Your task to perform on an android device: uninstall "Google Home" Image 0: 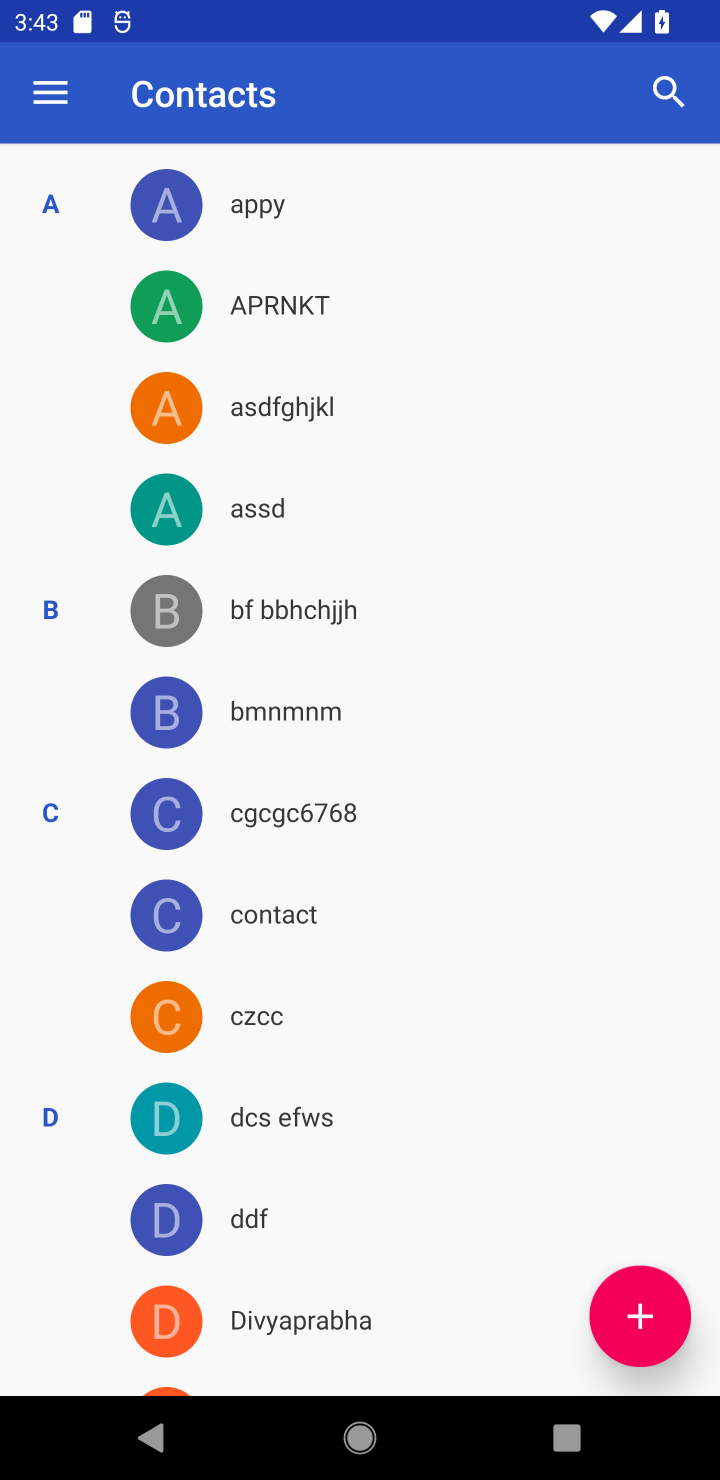
Step 0: press home button
Your task to perform on an android device: uninstall "Google Home" Image 1: 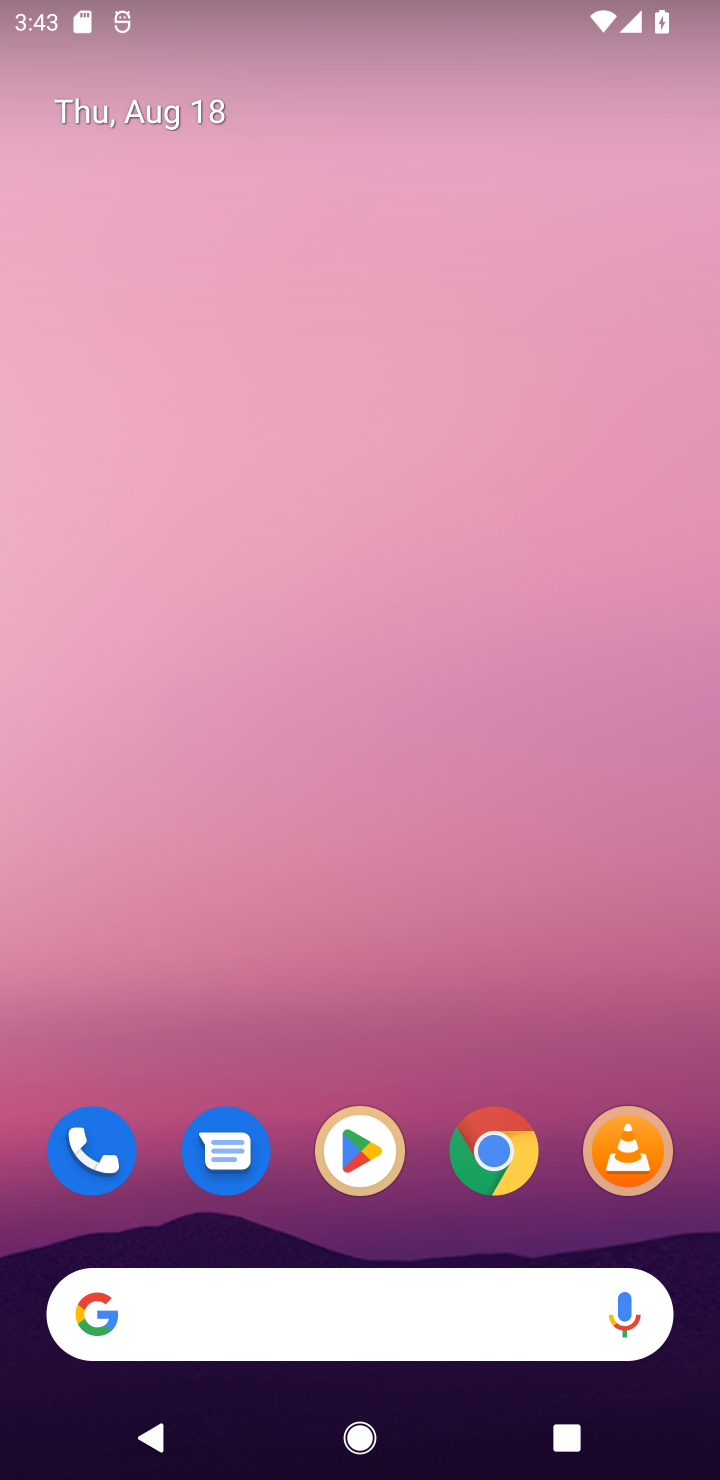
Step 1: drag from (438, 1230) to (263, 249)
Your task to perform on an android device: uninstall "Google Home" Image 2: 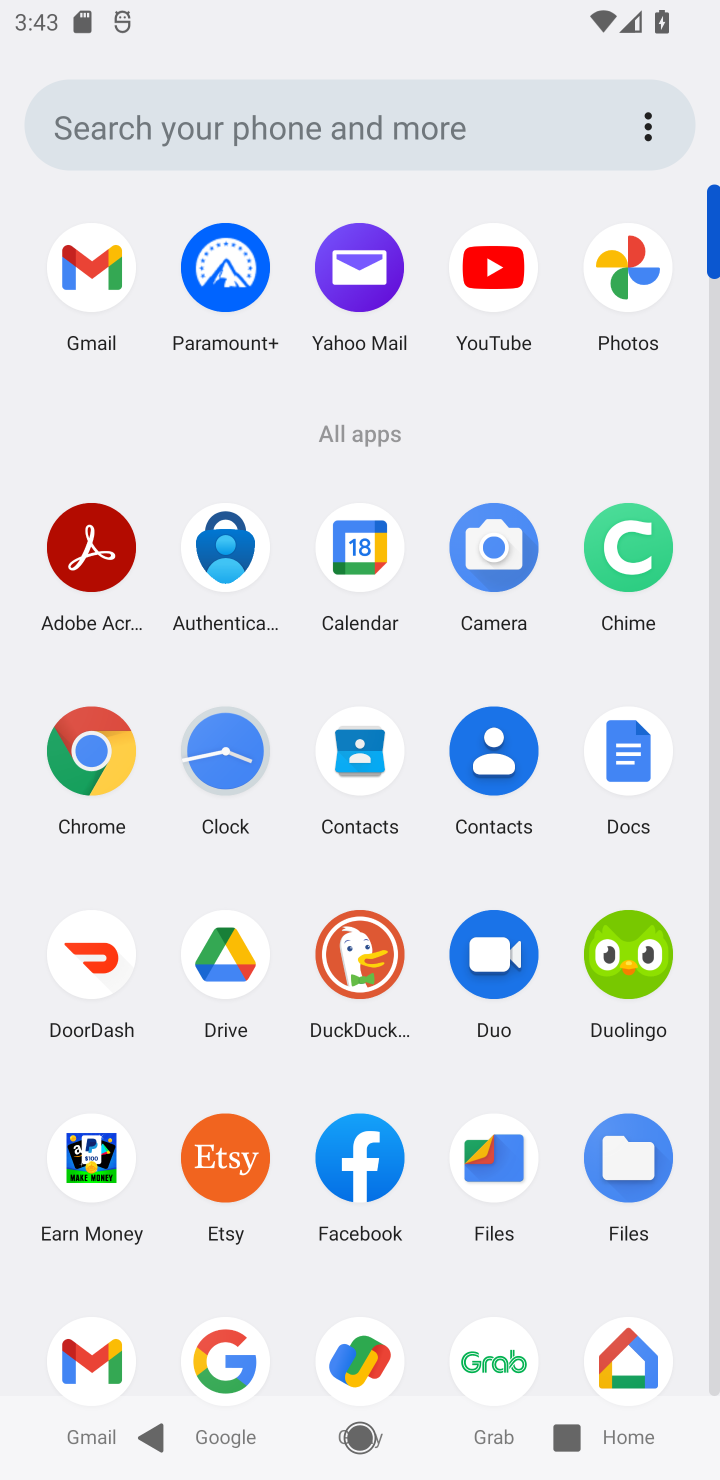
Step 2: click (642, 1389)
Your task to perform on an android device: uninstall "Google Home" Image 3: 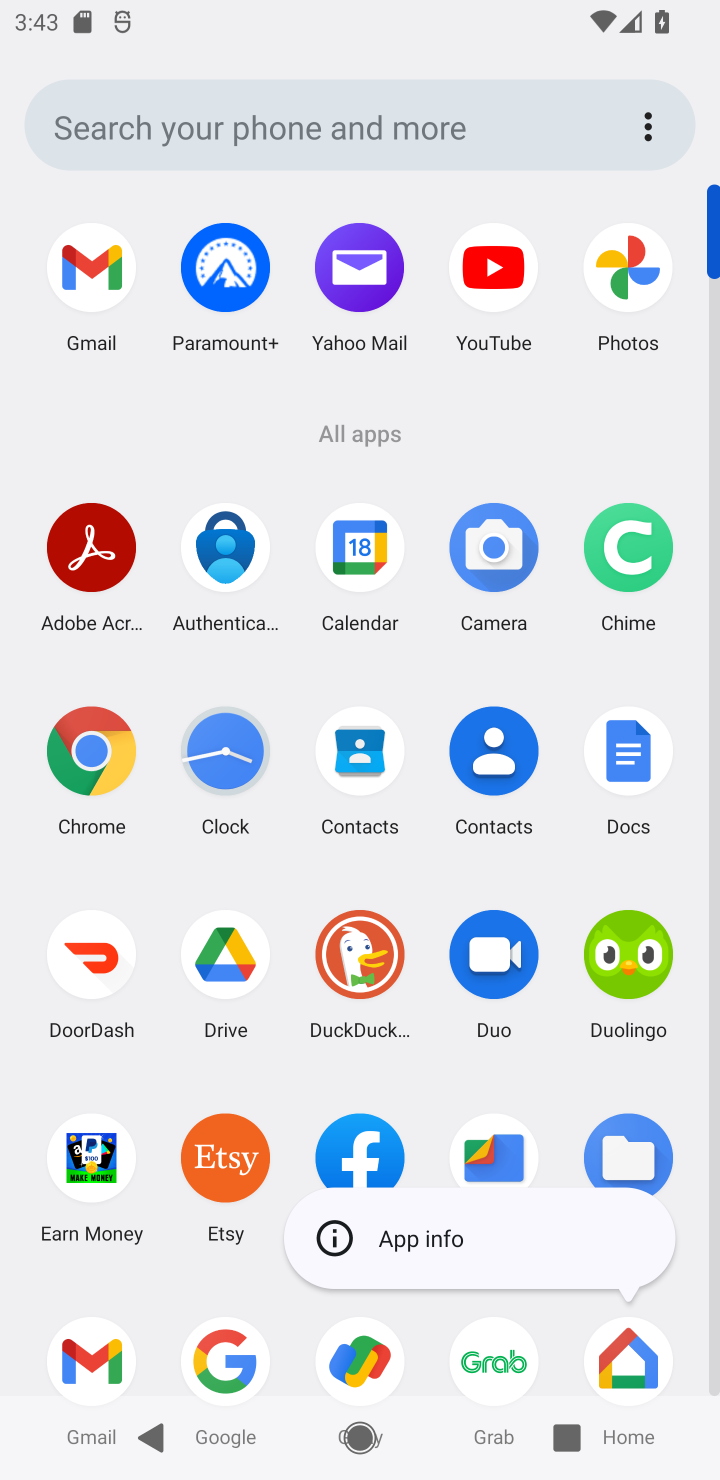
Step 3: click (538, 1253)
Your task to perform on an android device: uninstall "Google Home" Image 4: 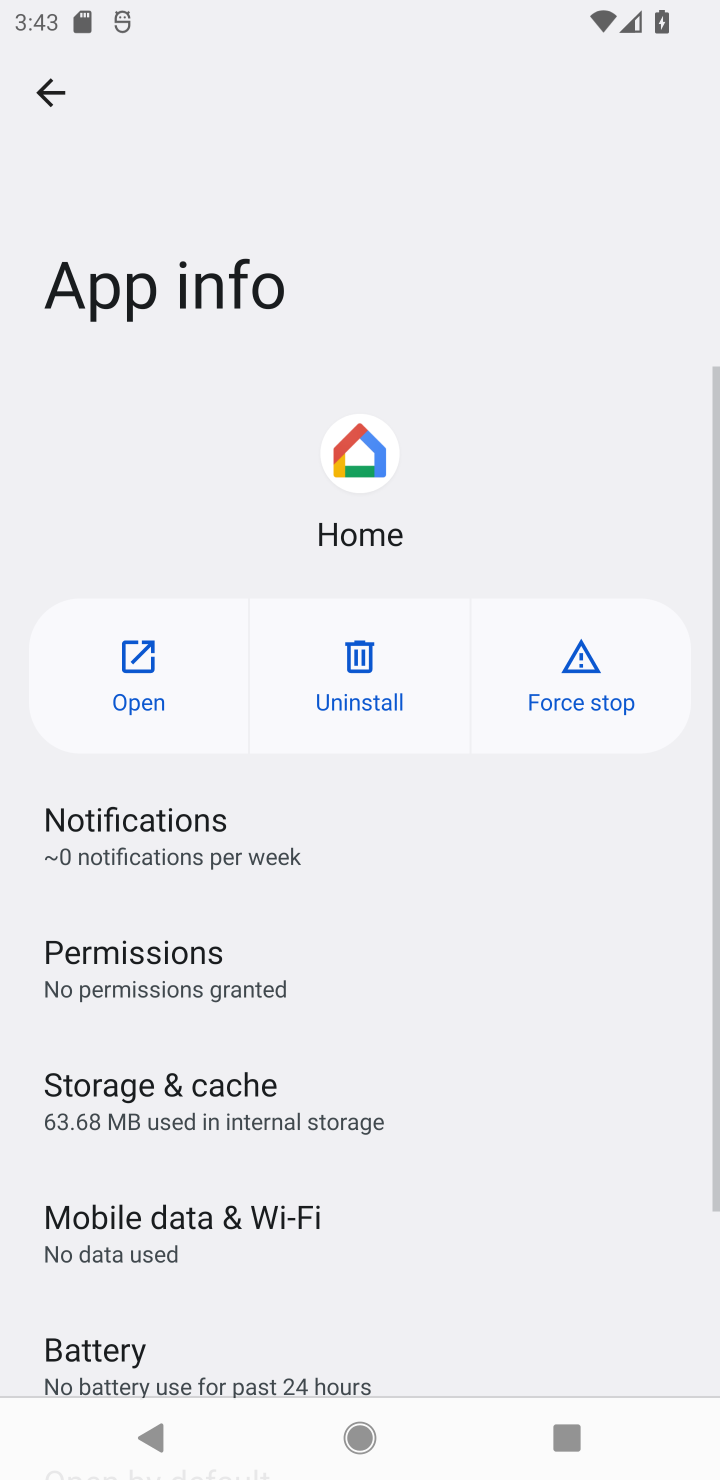
Step 4: click (386, 649)
Your task to perform on an android device: uninstall "Google Home" Image 5: 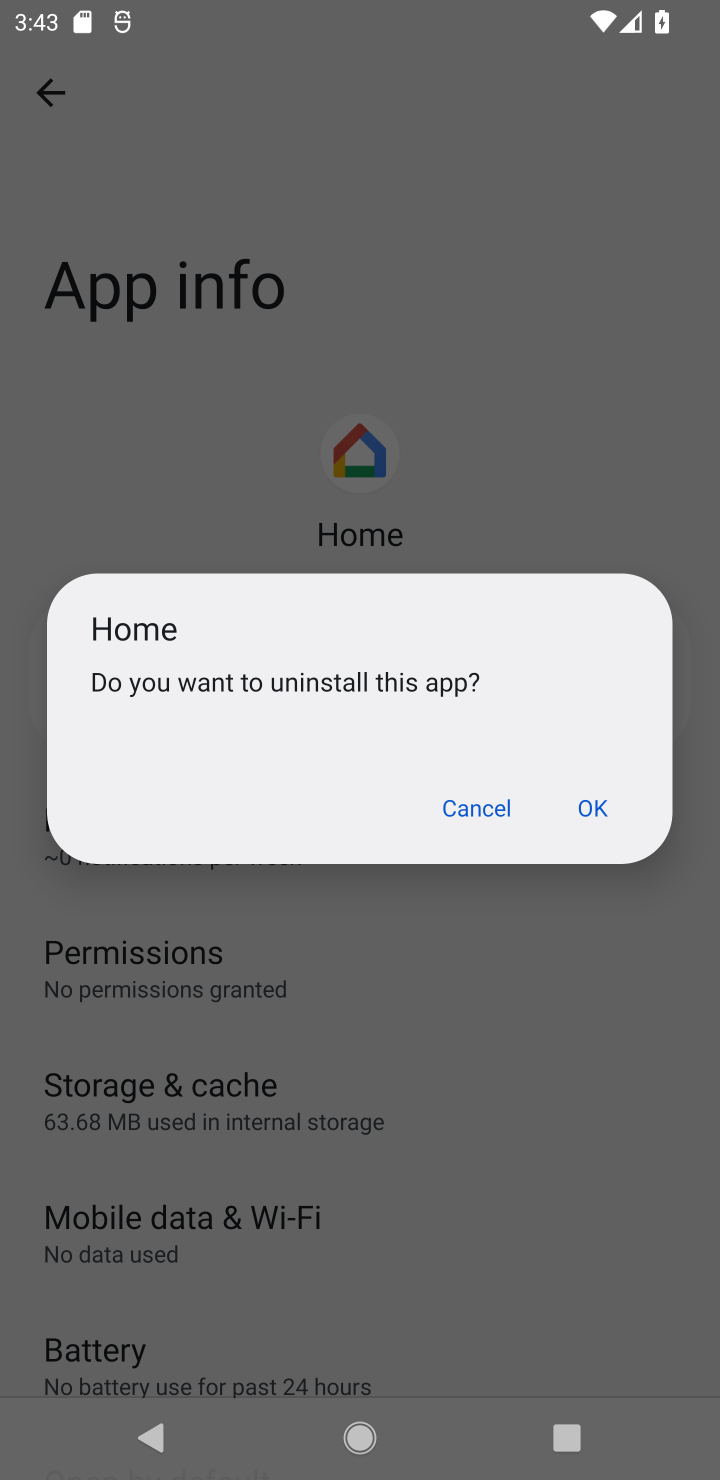
Step 5: click (580, 791)
Your task to perform on an android device: uninstall "Google Home" Image 6: 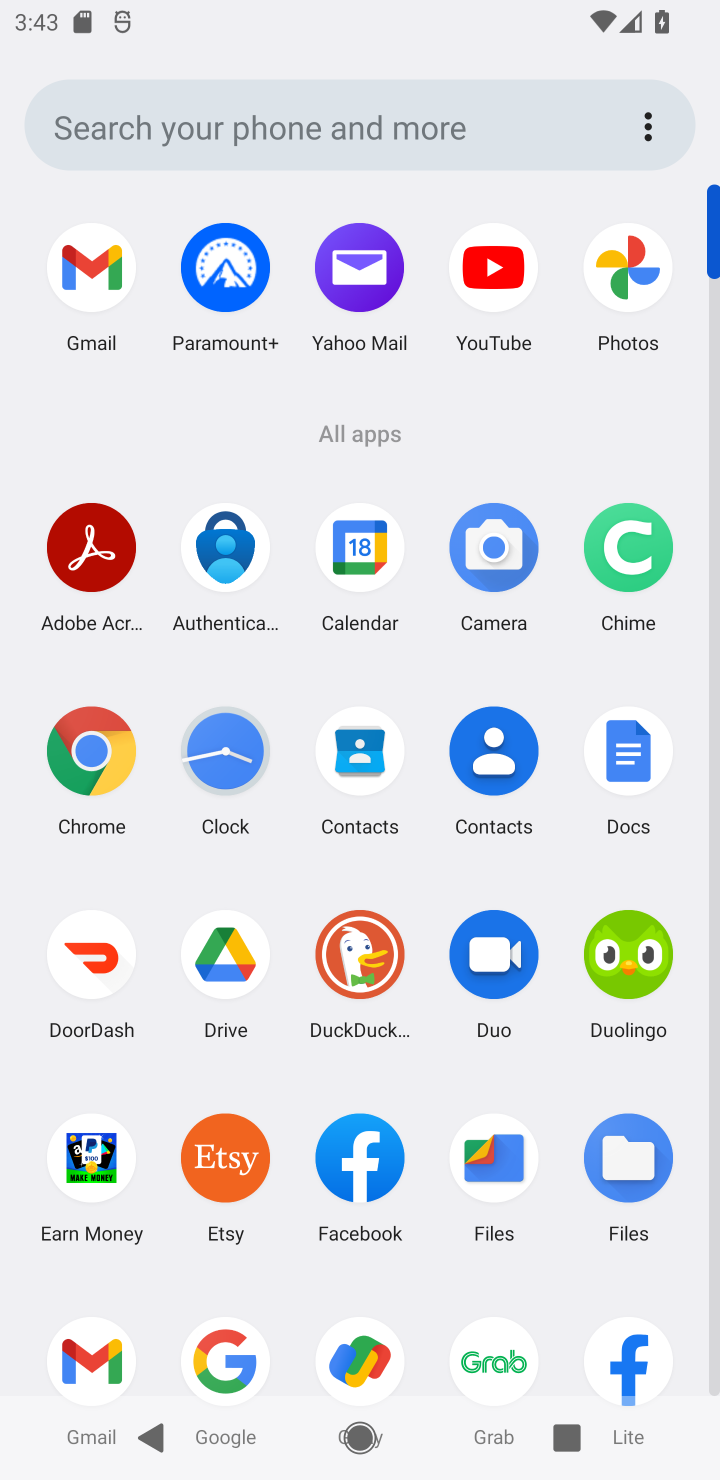
Step 6: task complete